Your task to perform on an android device: Open the phone app and click the voicemail tab. Image 0: 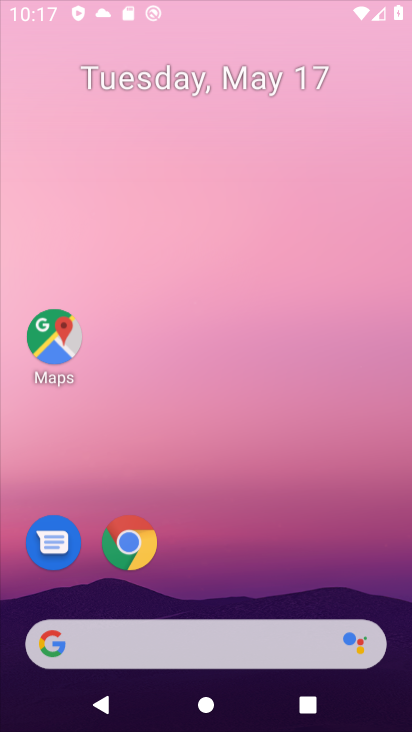
Step 0: click (290, 102)
Your task to perform on an android device: Open the phone app and click the voicemail tab. Image 1: 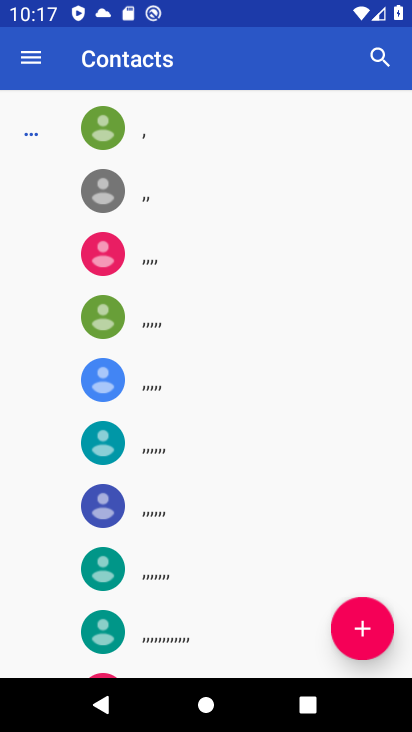
Step 1: press home button
Your task to perform on an android device: Open the phone app and click the voicemail tab. Image 2: 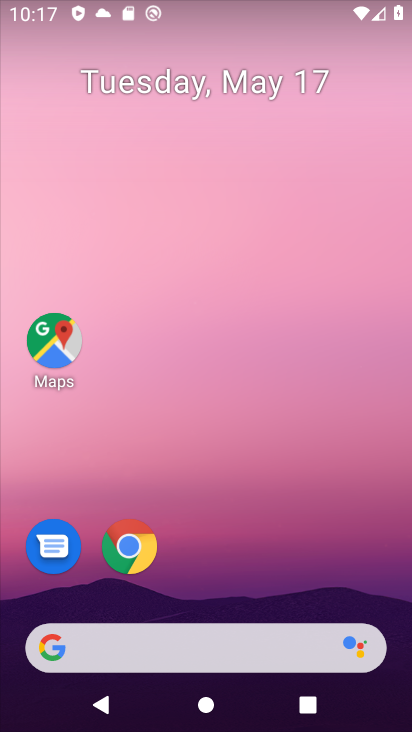
Step 2: drag from (255, 387) to (261, 332)
Your task to perform on an android device: Open the phone app and click the voicemail tab. Image 3: 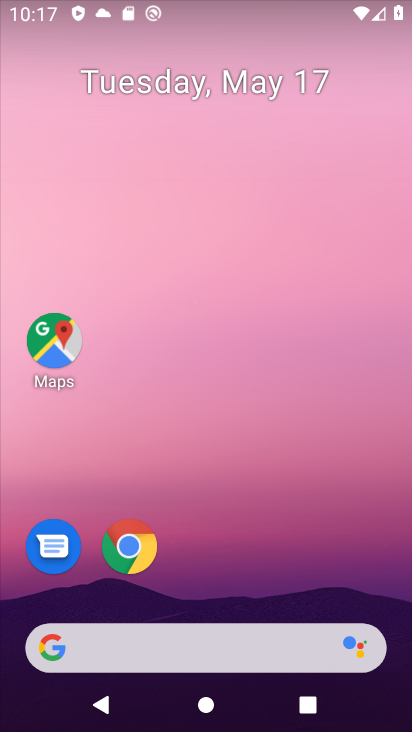
Step 3: drag from (285, 649) to (295, 227)
Your task to perform on an android device: Open the phone app and click the voicemail tab. Image 4: 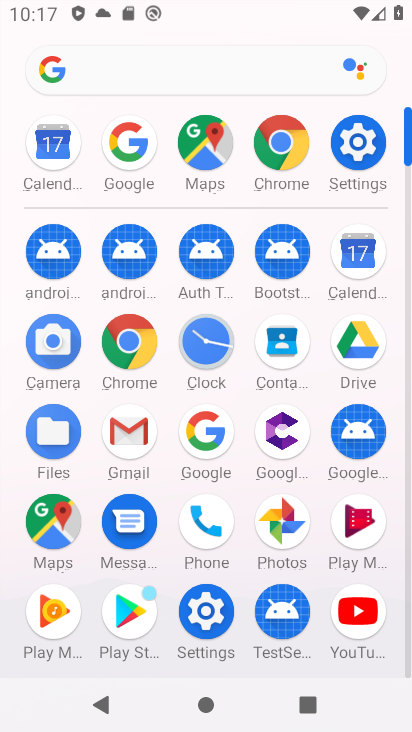
Step 4: click (205, 522)
Your task to perform on an android device: Open the phone app and click the voicemail tab. Image 5: 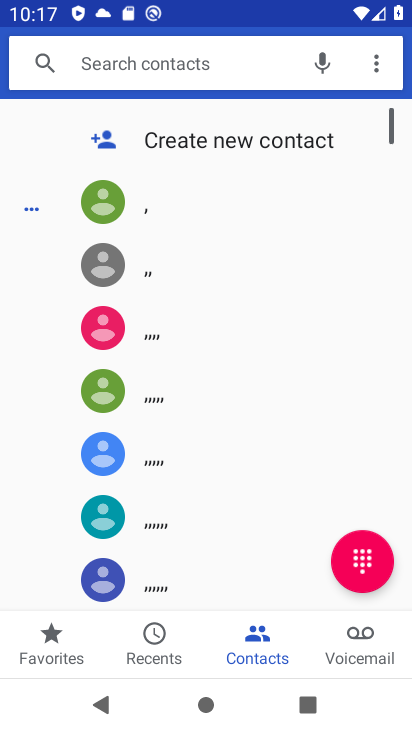
Step 5: click (365, 622)
Your task to perform on an android device: Open the phone app and click the voicemail tab. Image 6: 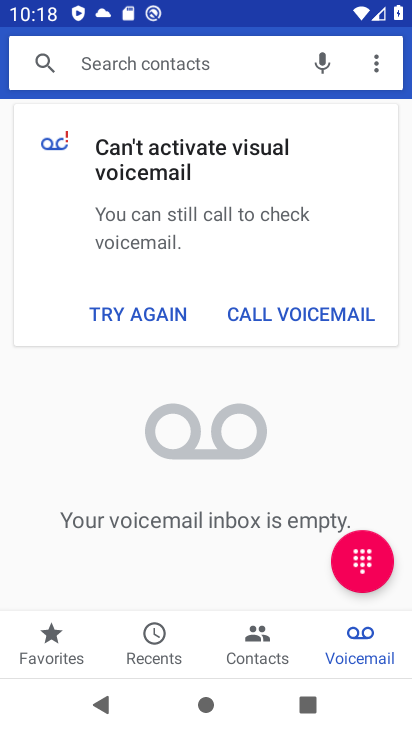
Step 6: task complete